Your task to perform on an android device: Open notification settings Image 0: 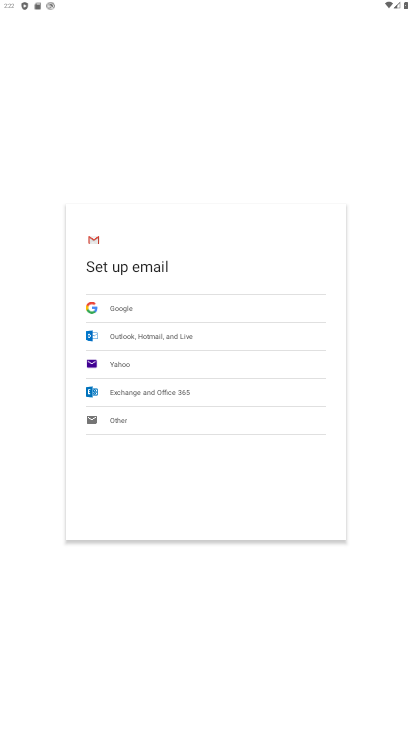
Step 0: press home button
Your task to perform on an android device: Open notification settings Image 1: 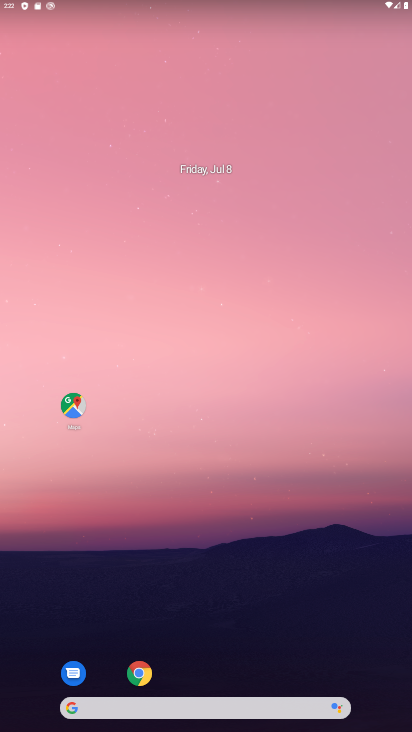
Step 1: drag from (179, 559) to (226, 98)
Your task to perform on an android device: Open notification settings Image 2: 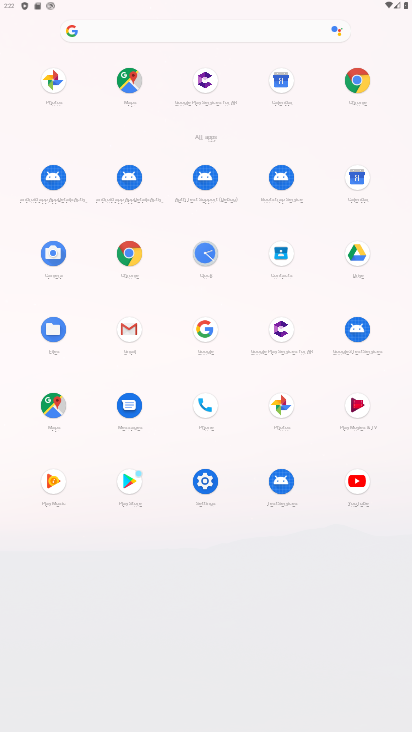
Step 2: click (206, 488)
Your task to perform on an android device: Open notification settings Image 3: 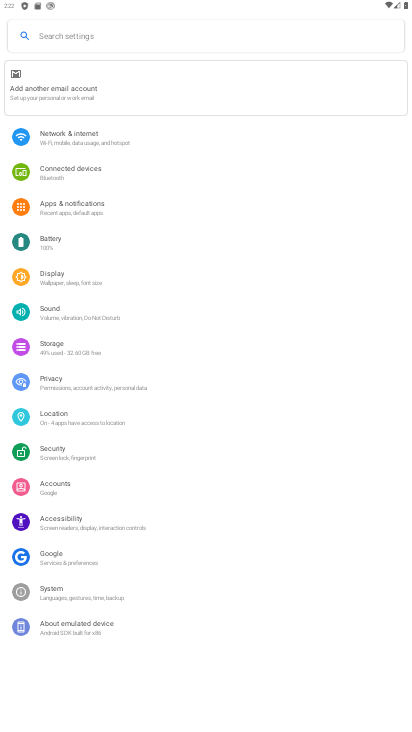
Step 3: click (96, 222)
Your task to perform on an android device: Open notification settings Image 4: 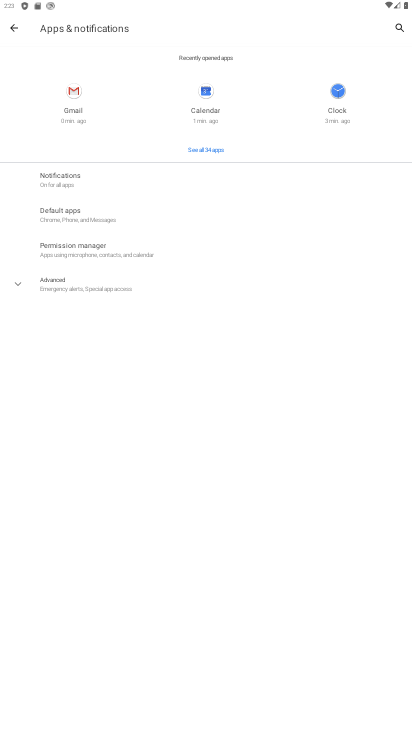
Step 4: click (60, 176)
Your task to perform on an android device: Open notification settings Image 5: 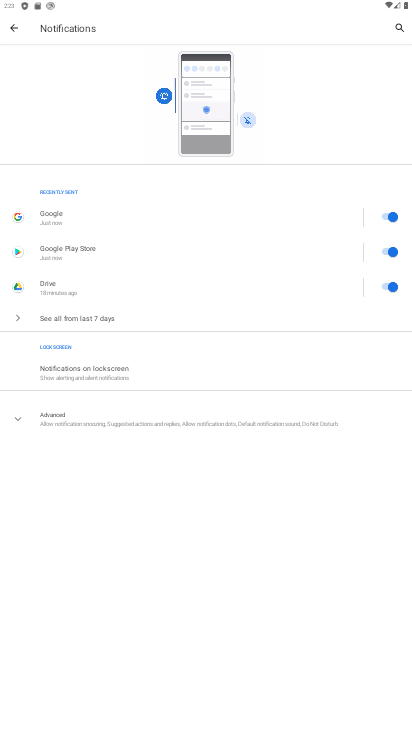
Step 5: task complete